Your task to perform on an android device: What is the news today? Image 0: 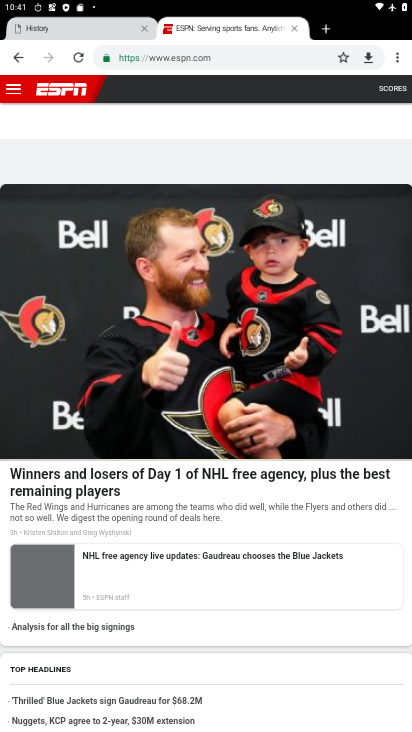
Step 0: press home button
Your task to perform on an android device: What is the news today? Image 1: 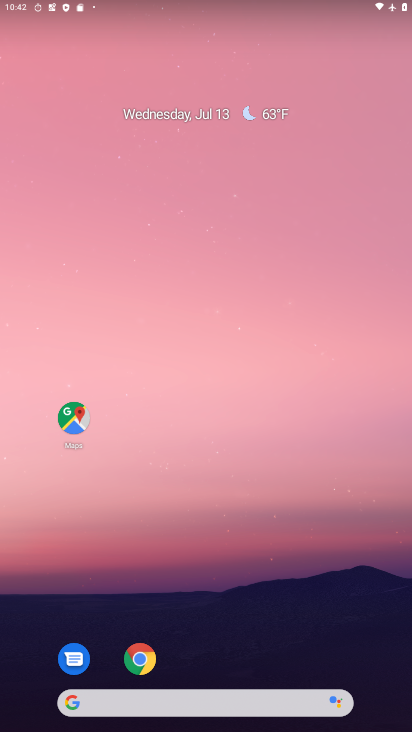
Step 1: drag from (281, 584) to (331, 68)
Your task to perform on an android device: What is the news today? Image 2: 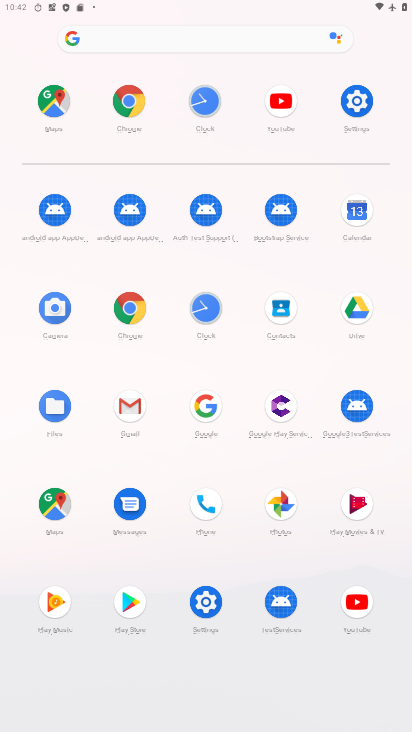
Step 2: click (126, 302)
Your task to perform on an android device: What is the news today? Image 3: 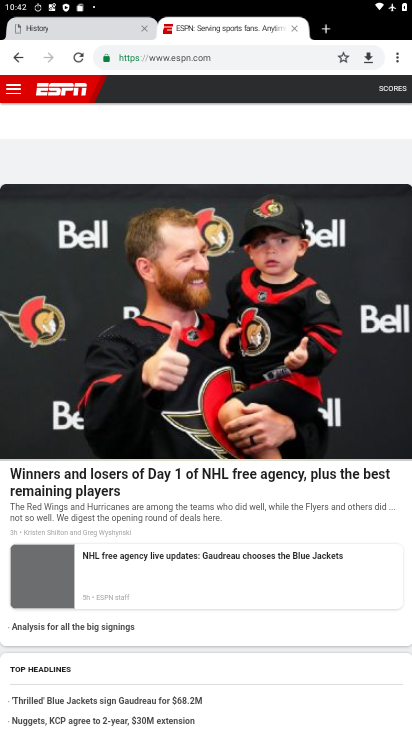
Step 3: click (161, 57)
Your task to perform on an android device: What is the news today? Image 4: 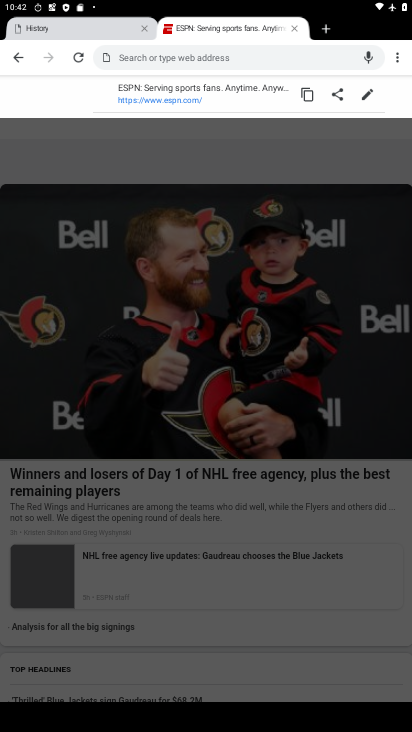
Step 4: type "news"
Your task to perform on an android device: What is the news today? Image 5: 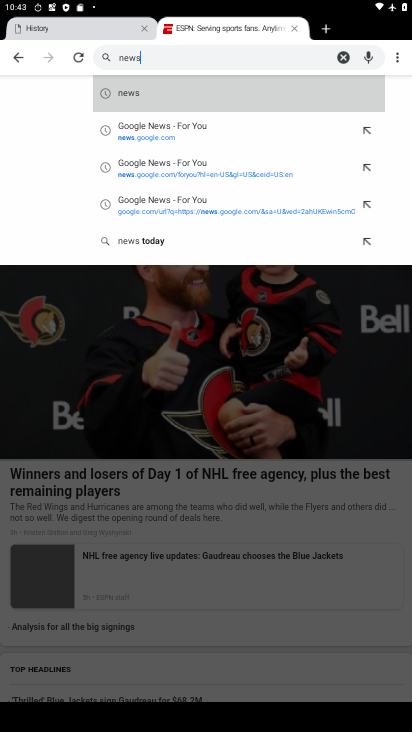
Step 5: click (136, 90)
Your task to perform on an android device: What is the news today? Image 6: 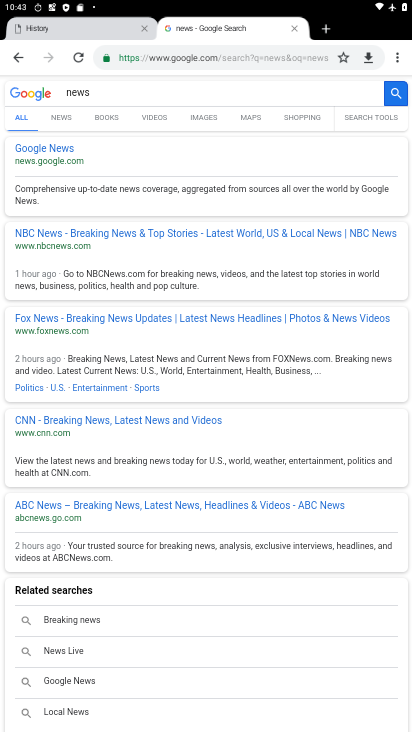
Step 6: click (47, 148)
Your task to perform on an android device: What is the news today? Image 7: 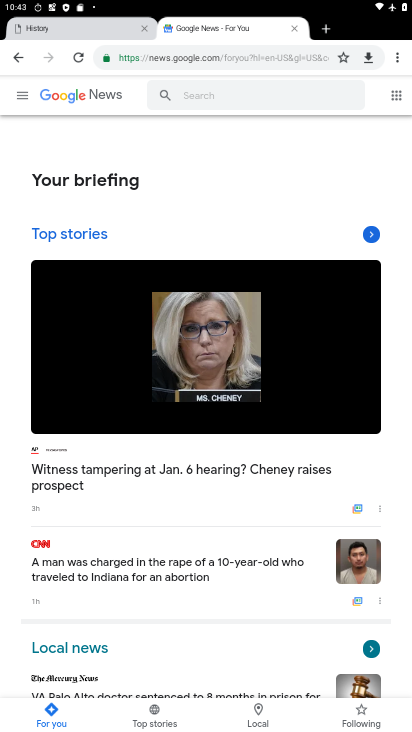
Step 7: task complete